Your task to perform on an android device: Go to Yahoo.com Image 0: 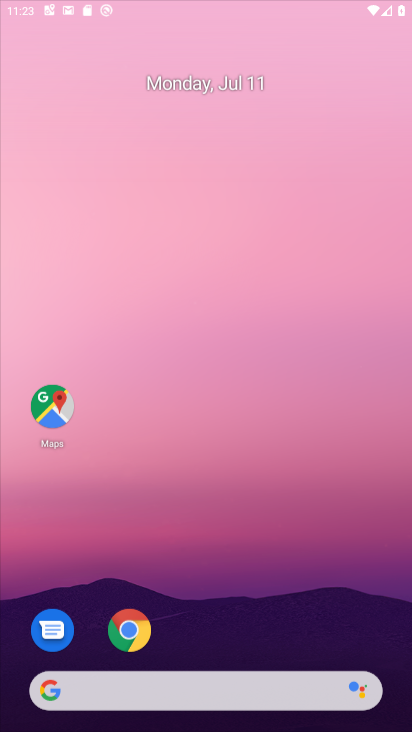
Step 0: drag from (239, 336) to (239, 141)
Your task to perform on an android device: Go to Yahoo.com Image 1: 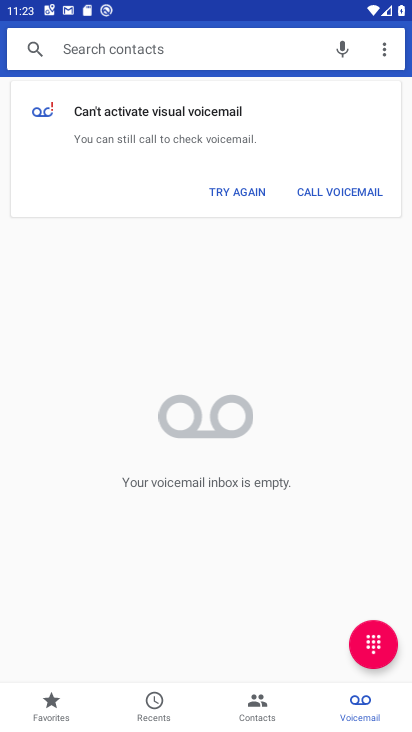
Step 1: press home button
Your task to perform on an android device: Go to Yahoo.com Image 2: 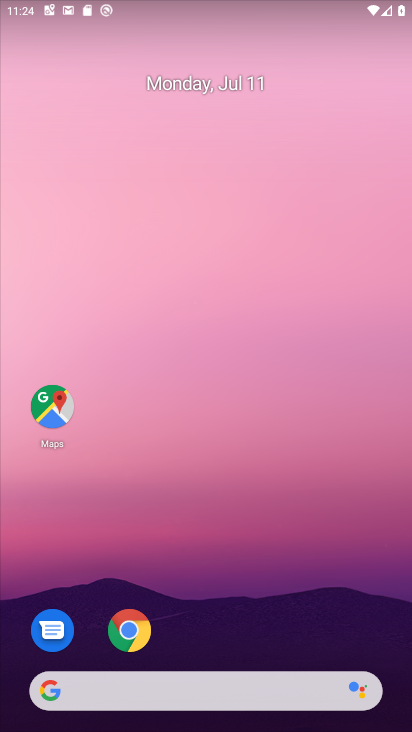
Step 2: click (126, 630)
Your task to perform on an android device: Go to Yahoo.com Image 3: 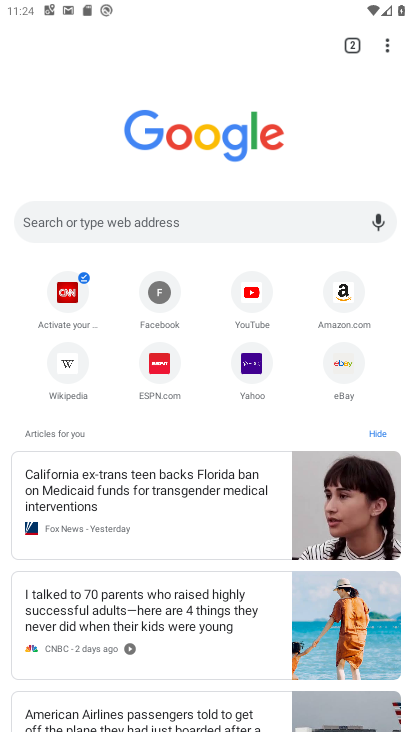
Step 3: click (259, 366)
Your task to perform on an android device: Go to Yahoo.com Image 4: 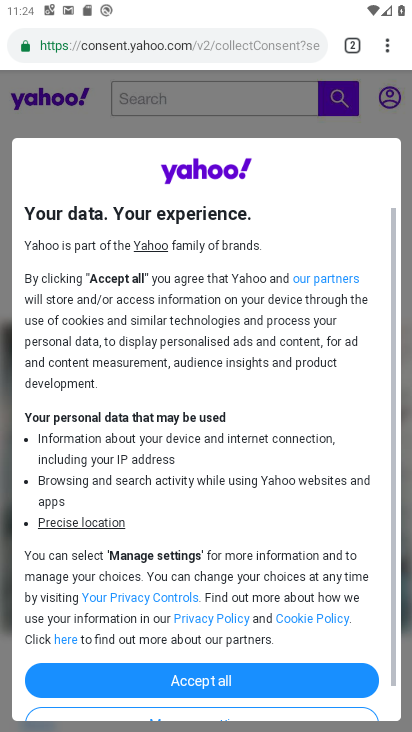
Step 4: task complete